Your task to perform on an android device: stop showing notifications on the lock screen Image 0: 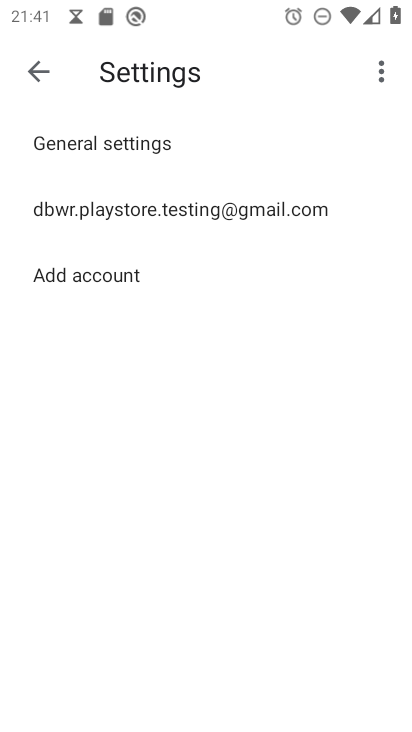
Step 0: press home button
Your task to perform on an android device: stop showing notifications on the lock screen Image 1: 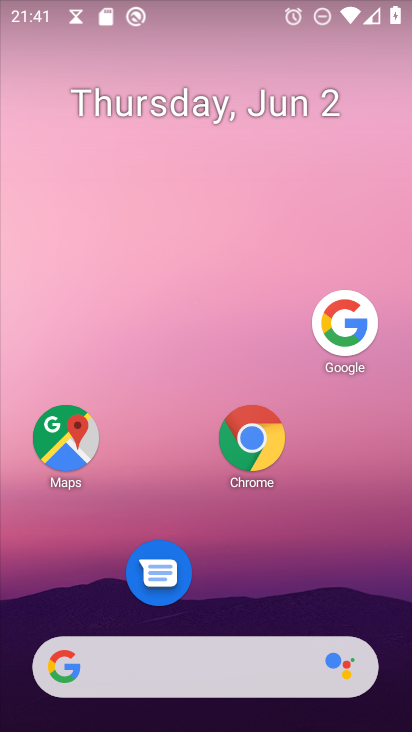
Step 1: drag from (160, 670) to (306, 116)
Your task to perform on an android device: stop showing notifications on the lock screen Image 2: 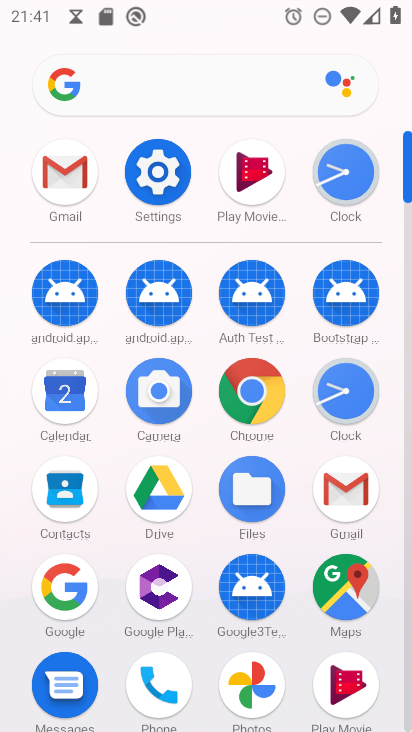
Step 2: click (167, 192)
Your task to perform on an android device: stop showing notifications on the lock screen Image 3: 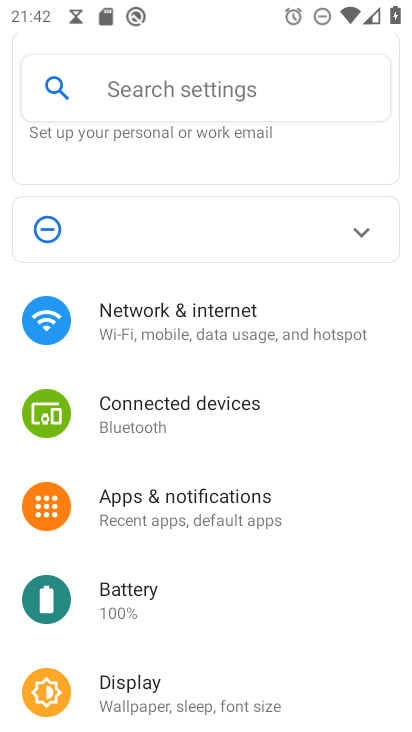
Step 3: click (186, 506)
Your task to perform on an android device: stop showing notifications on the lock screen Image 4: 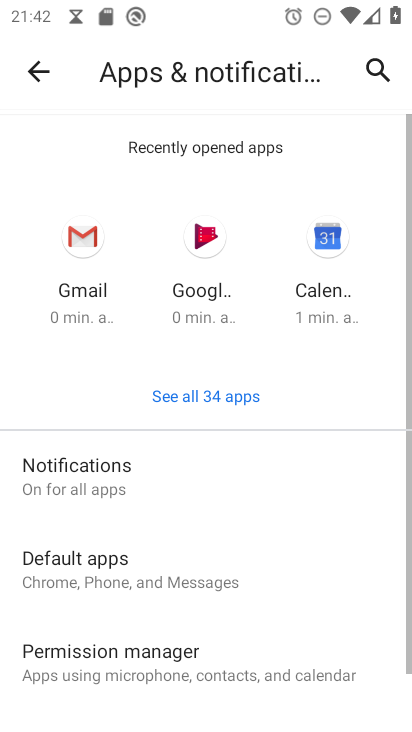
Step 4: click (90, 473)
Your task to perform on an android device: stop showing notifications on the lock screen Image 5: 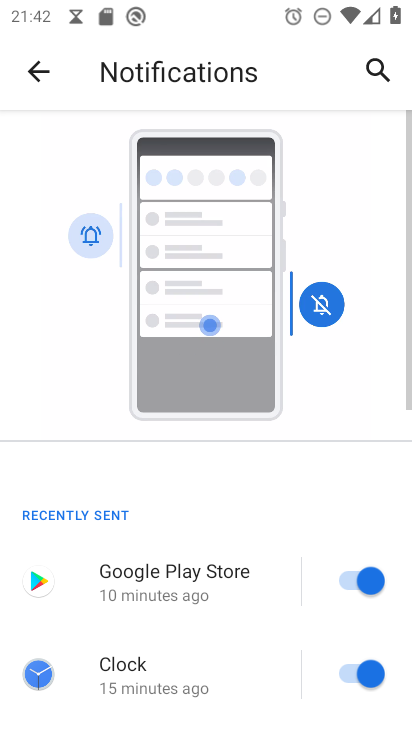
Step 5: drag from (200, 648) to (293, 133)
Your task to perform on an android device: stop showing notifications on the lock screen Image 6: 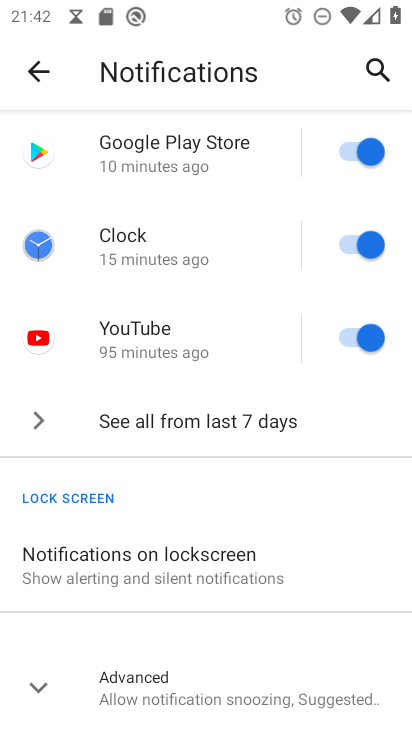
Step 6: click (168, 580)
Your task to perform on an android device: stop showing notifications on the lock screen Image 7: 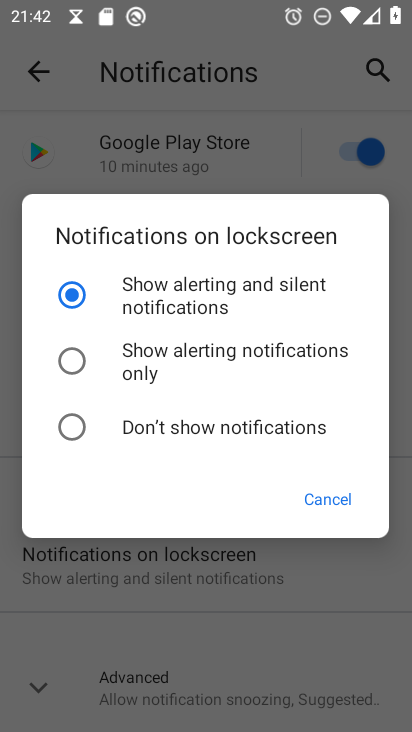
Step 7: click (77, 424)
Your task to perform on an android device: stop showing notifications on the lock screen Image 8: 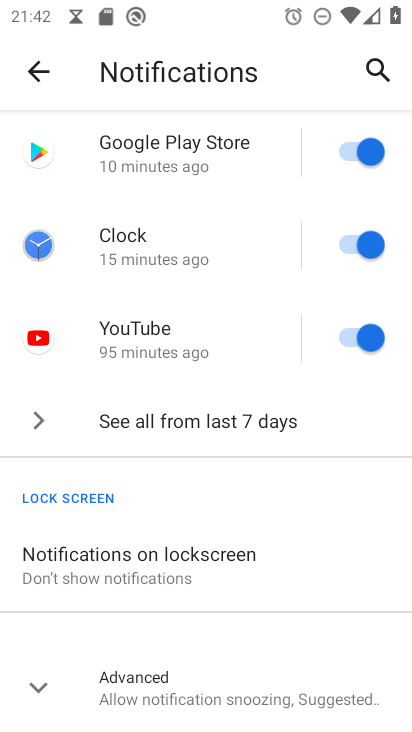
Step 8: task complete